Your task to perform on an android device: Search for sushi restaurants on Maps Image 0: 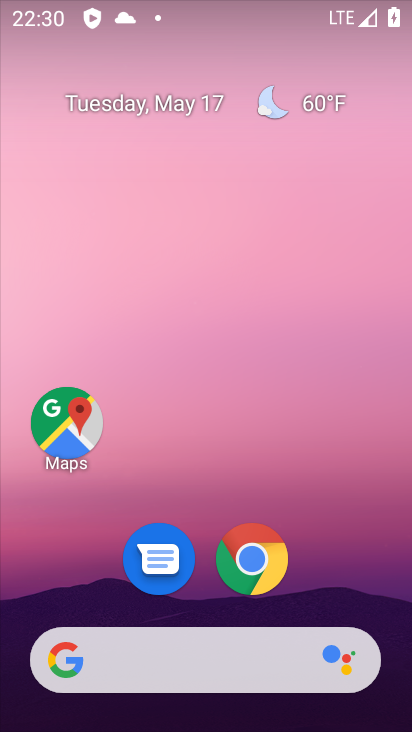
Step 0: click (72, 429)
Your task to perform on an android device: Search for sushi restaurants on Maps Image 1: 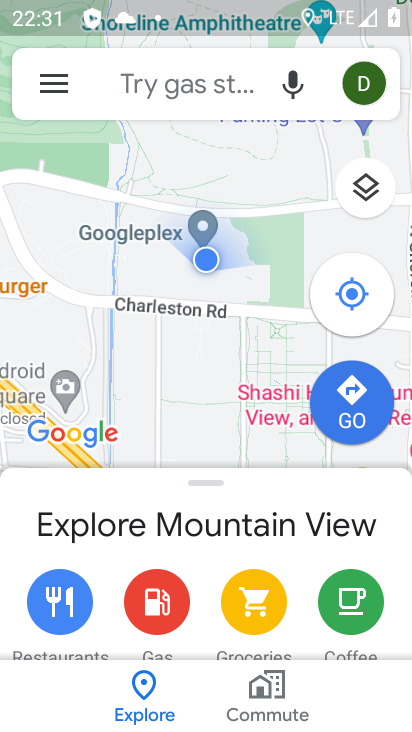
Step 1: click (182, 85)
Your task to perform on an android device: Search for sushi restaurants on Maps Image 2: 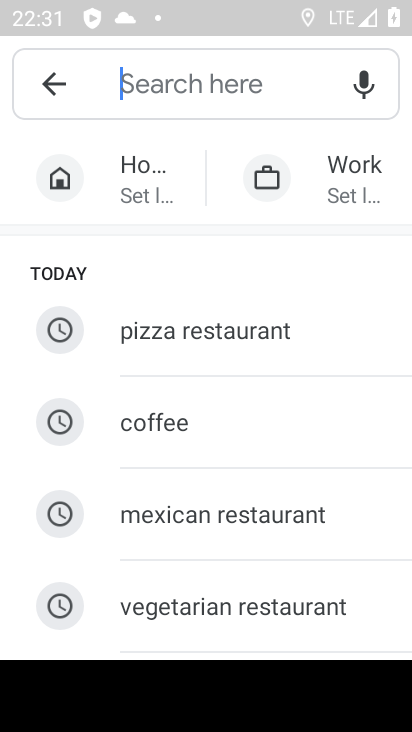
Step 2: type "sushi restaurants"
Your task to perform on an android device: Search for sushi restaurants on Maps Image 3: 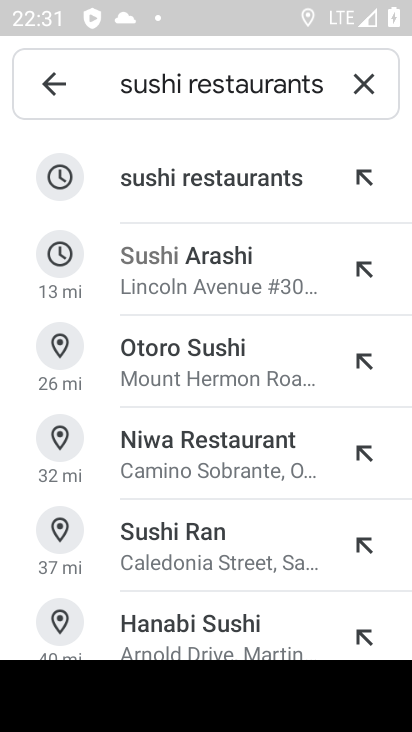
Step 3: click (220, 173)
Your task to perform on an android device: Search for sushi restaurants on Maps Image 4: 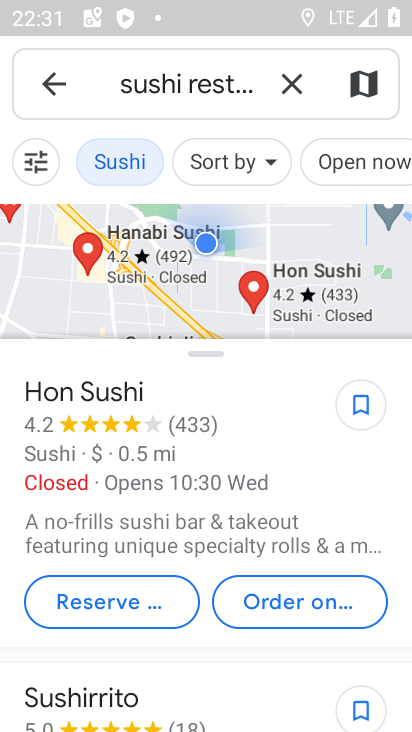
Step 4: task complete